Your task to perform on an android device: Open Youtube and go to "Your channel" Image 0: 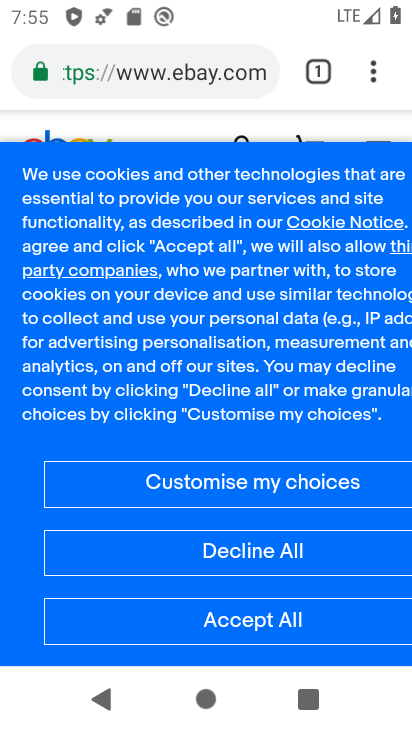
Step 0: press home button
Your task to perform on an android device: Open Youtube and go to "Your channel" Image 1: 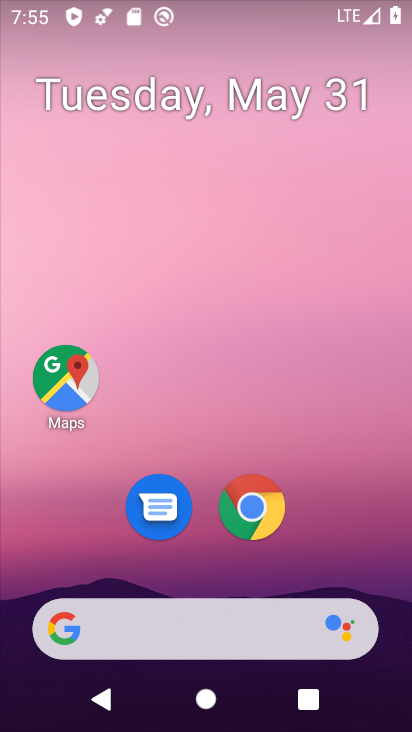
Step 1: drag from (355, 580) to (313, 5)
Your task to perform on an android device: Open Youtube and go to "Your channel" Image 2: 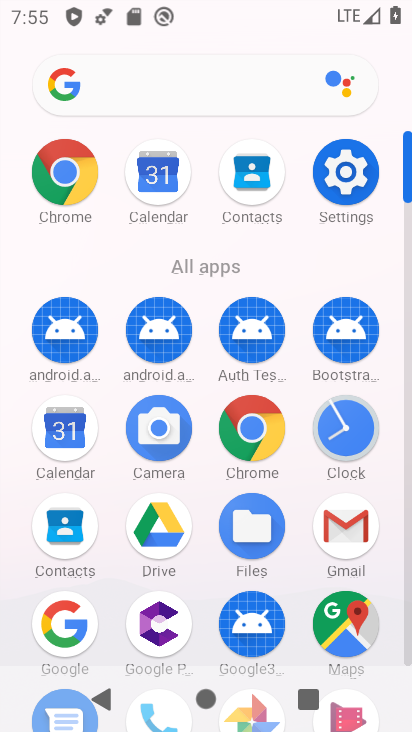
Step 2: drag from (410, 519) to (411, 483)
Your task to perform on an android device: Open Youtube and go to "Your channel" Image 3: 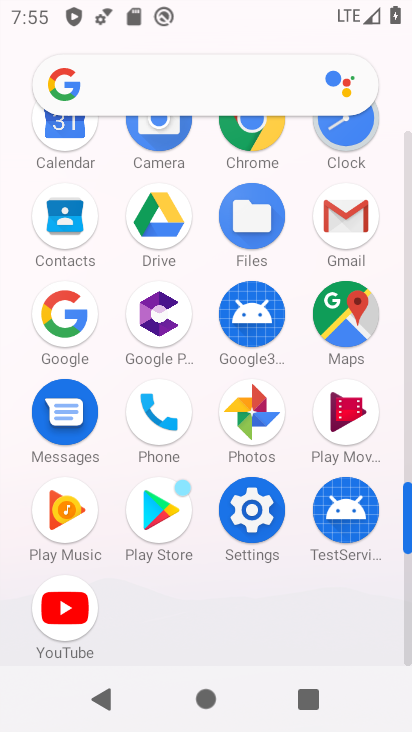
Step 3: click (65, 609)
Your task to perform on an android device: Open Youtube and go to "Your channel" Image 4: 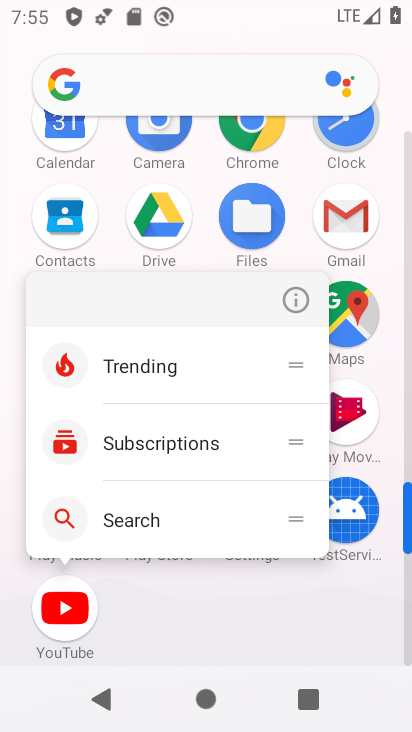
Step 4: click (65, 609)
Your task to perform on an android device: Open Youtube and go to "Your channel" Image 5: 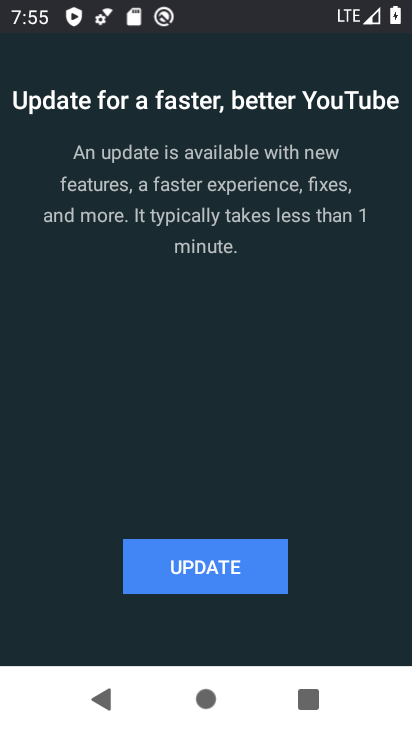
Step 5: click (192, 600)
Your task to perform on an android device: Open Youtube and go to "Your channel" Image 6: 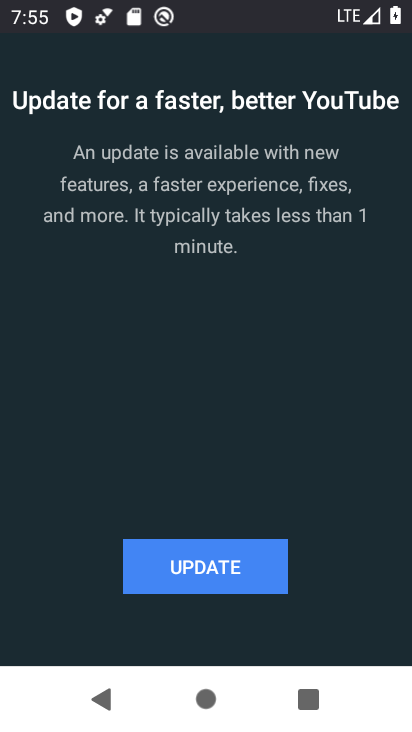
Step 6: click (199, 589)
Your task to perform on an android device: Open Youtube and go to "Your channel" Image 7: 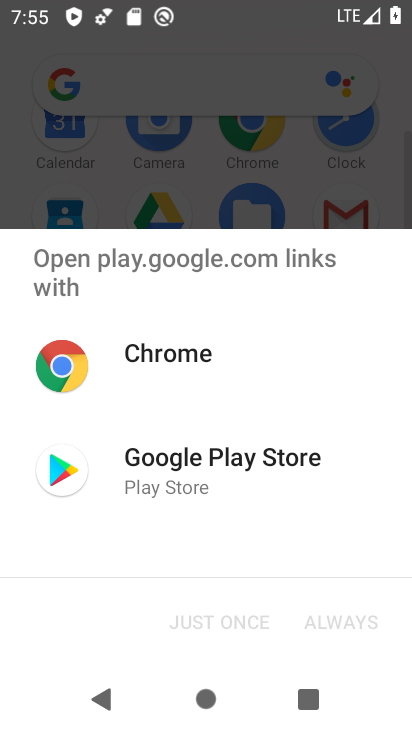
Step 7: click (136, 463)
Your task to perform on an android device: Open Youtube and go to "Your channel" Image 8: 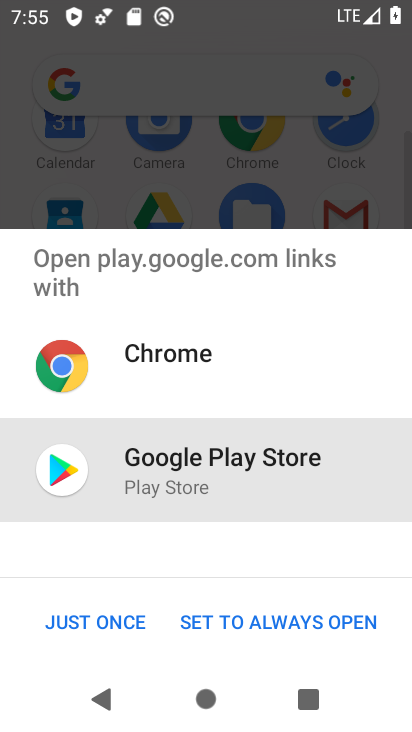
Step 8: click (70, 611)
Your task to perform on an android device: Open Youtube and go to "Your channel" Image 9: 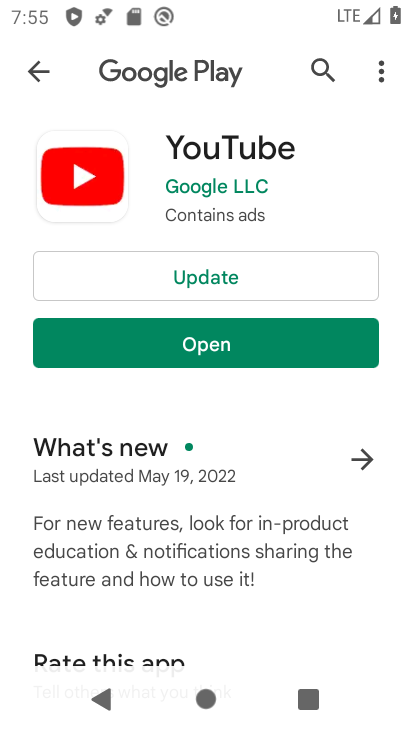
Step 9: click (201, 271)
Your task to perform on an android device: Open Youtube and go to "Your channel" Image 10: 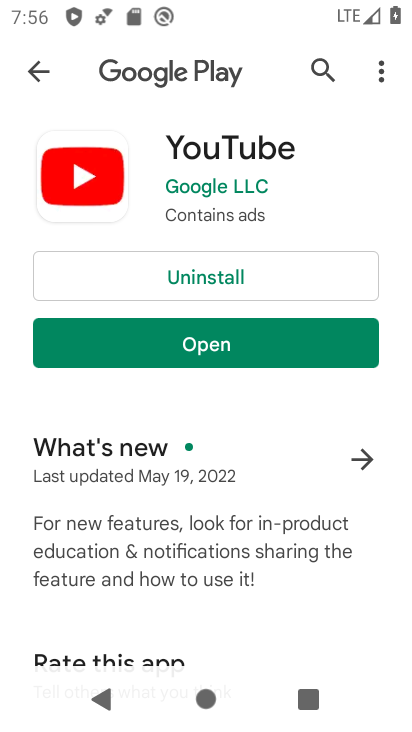
Step 10: click (201, 357)
Your task to perform on an android device: Open Youtube and go to "Your channel" Image 11: 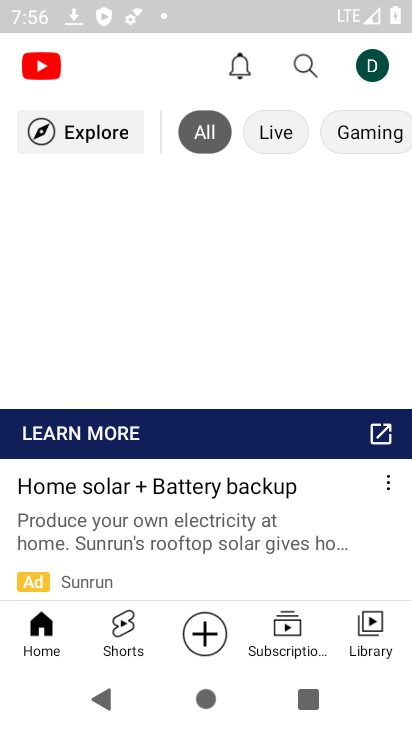
Step 11: click (368, 75)
Your task to perform on an android device: Open Youtube and go to "Your channel" Image 12: 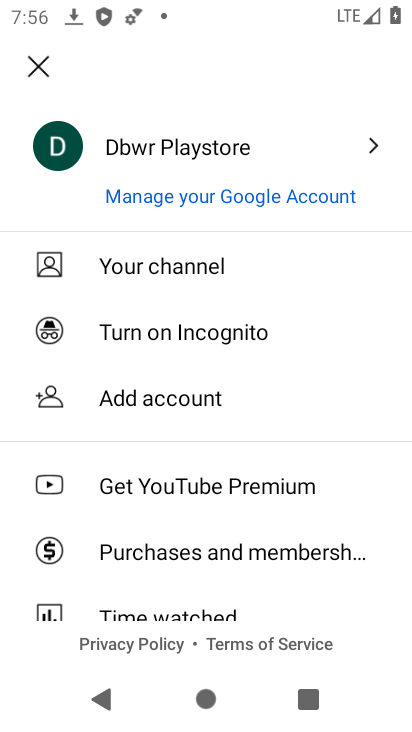
Step 12: click (177, 270)
Your task to perform on an android device: Open Youtube and go to "Your channel" Image 13: 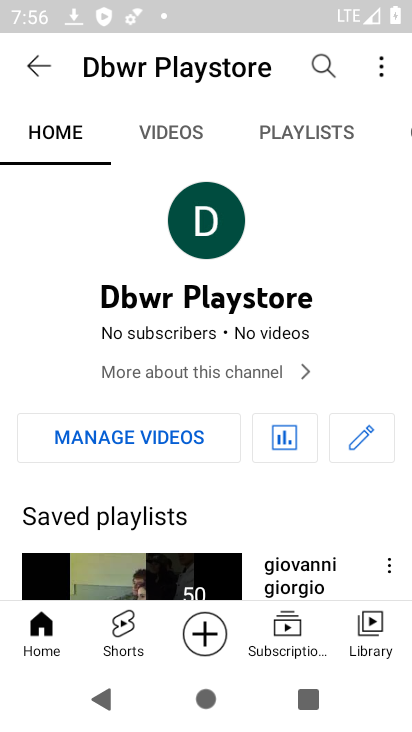
Step 13: task complete